Your task to perform on an android device: change the upload size in google photos Image 0: 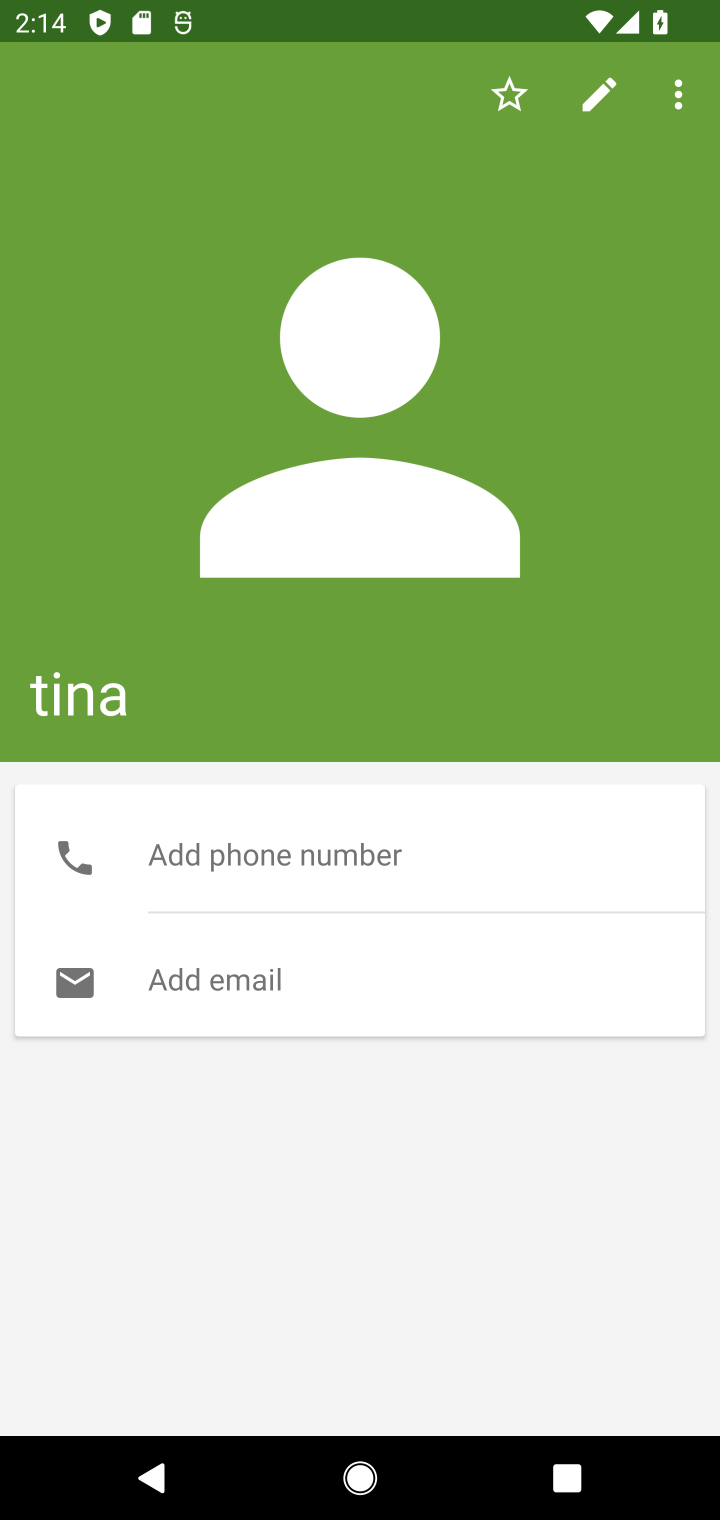
Step 0: press home button
Your task to perform on an android device: change the upload size in google photos Image 1: 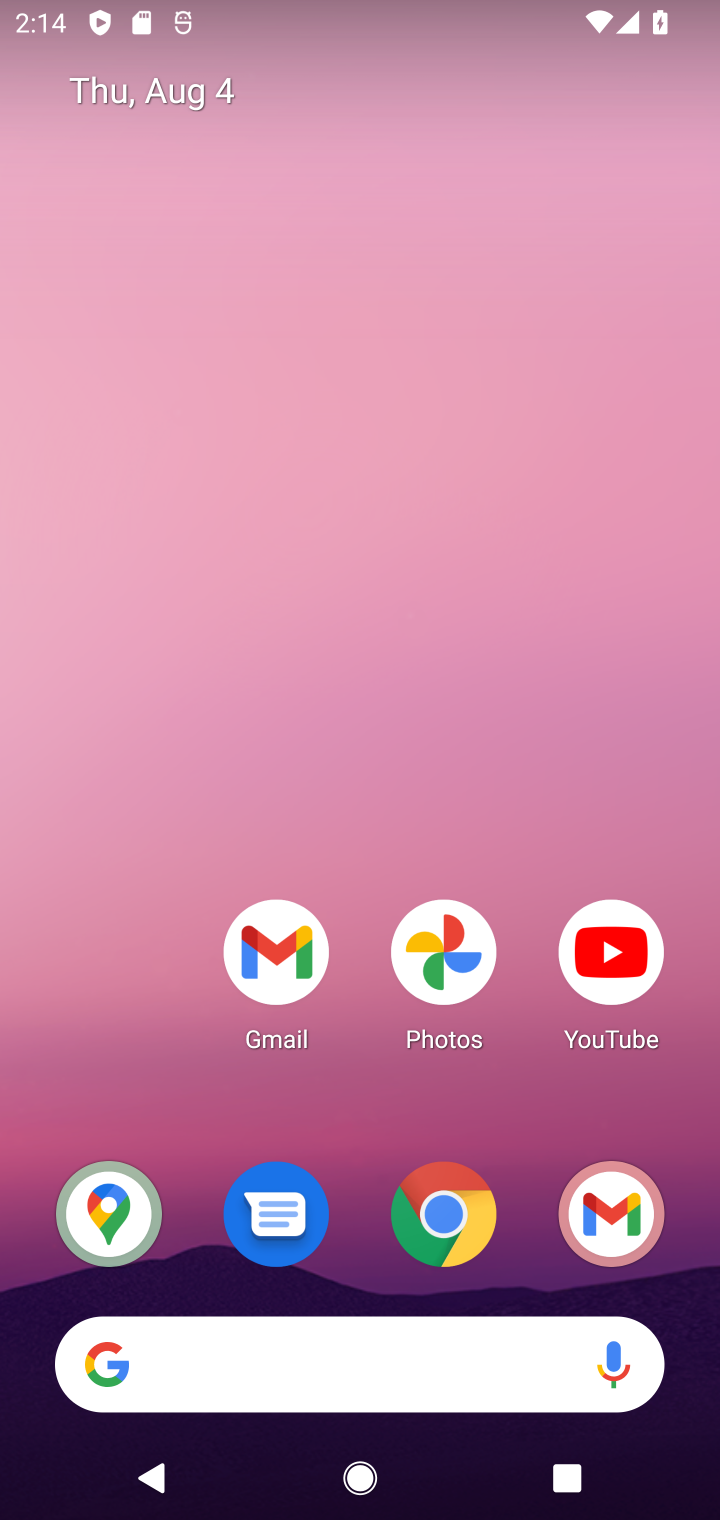
Step 1: drag from (169, 1106) to (85, 2)
Your task to perform on an android device: change the upload size in google photos Image 2: 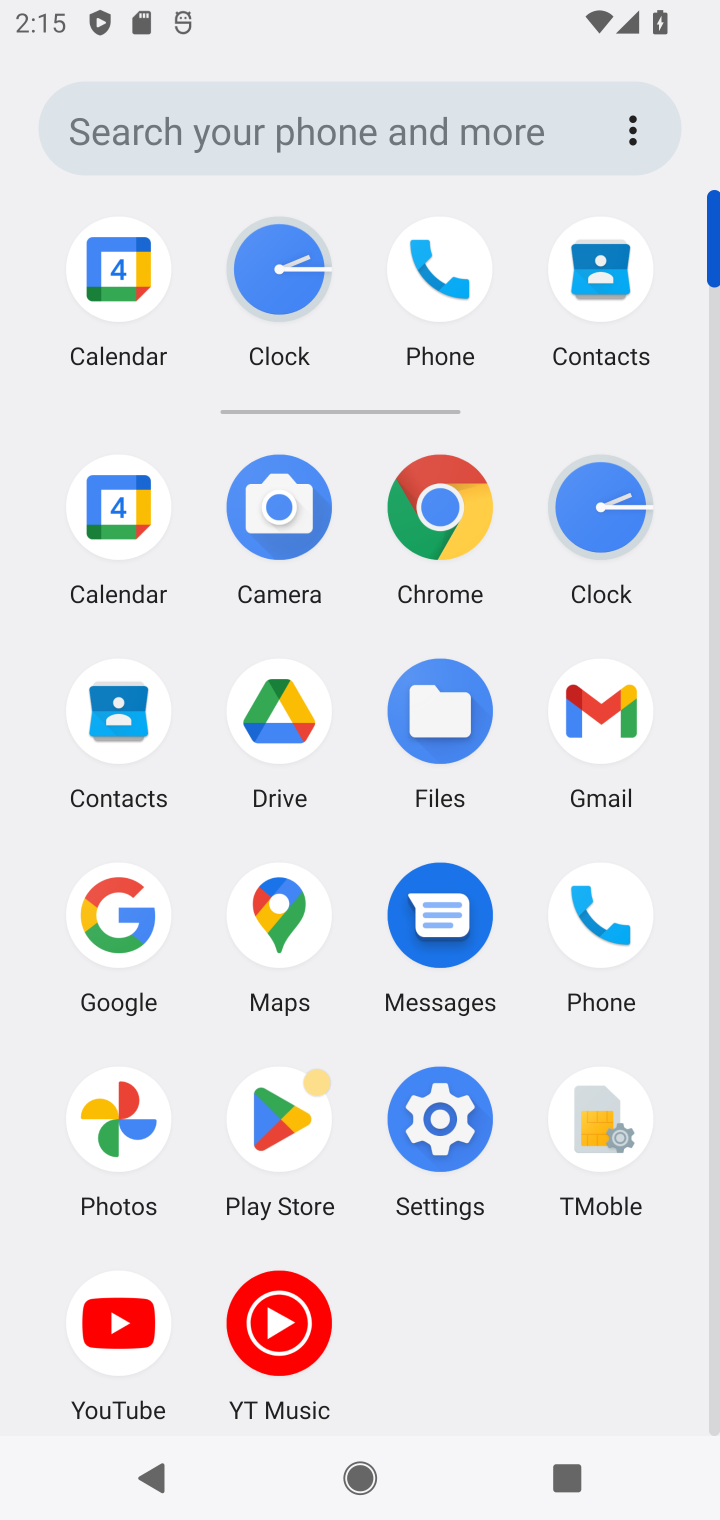
Step 2: click (115, 1122)
Your task to perform on an android device: change the upload size in google photos Image 3: 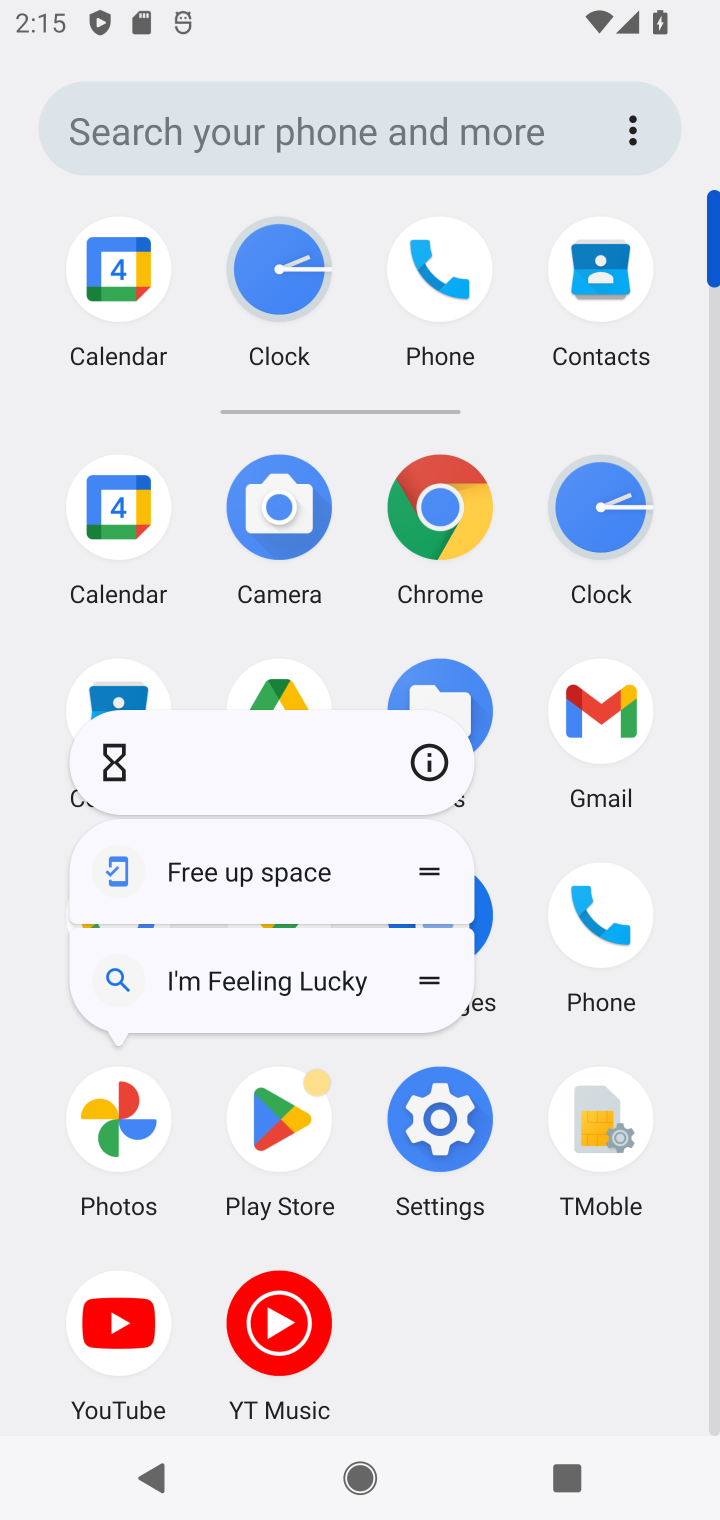
Step 3: click (117, 1097)
Your task to perform on an android device: change the upload size in google photos Image 4: 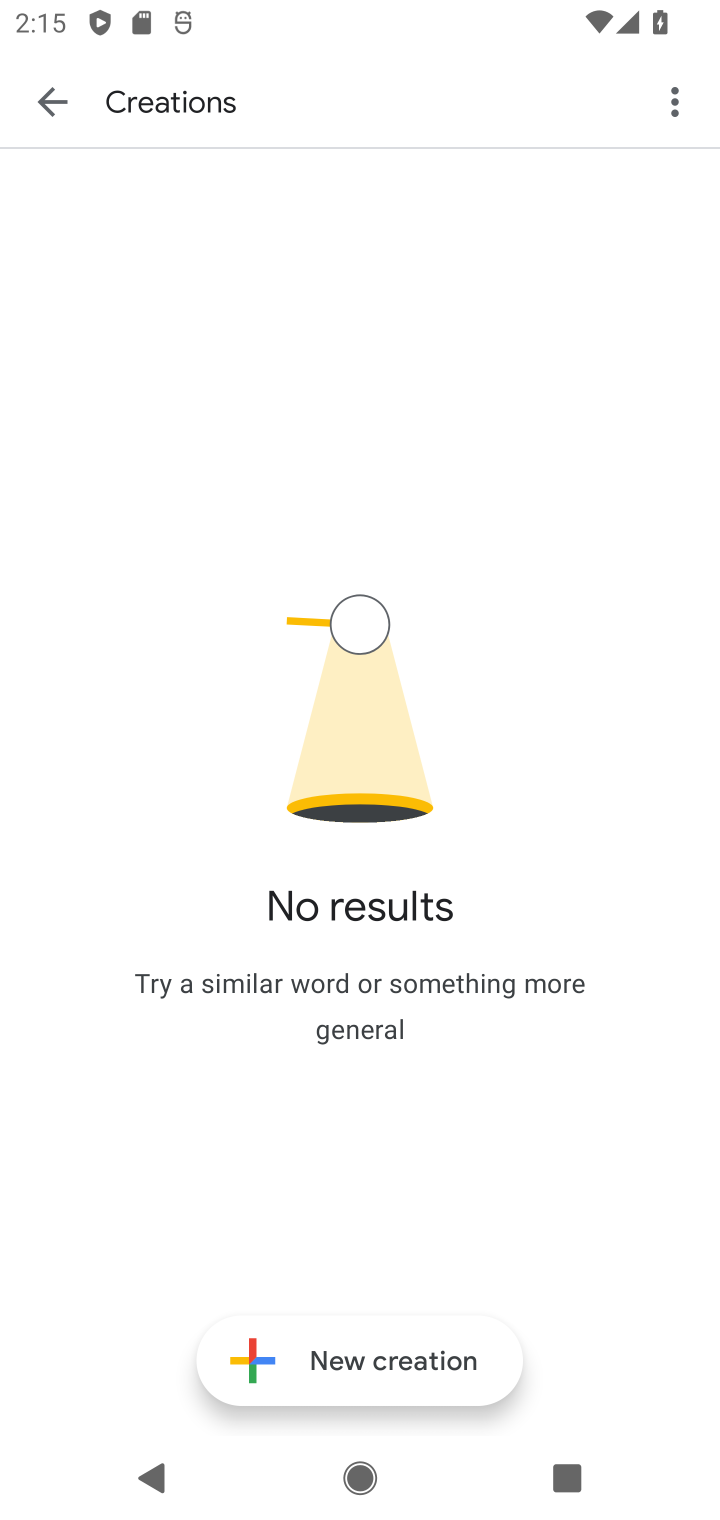
Step 4: press back button
Your task to perform on an android device: change the upload size in google photos Image 5: 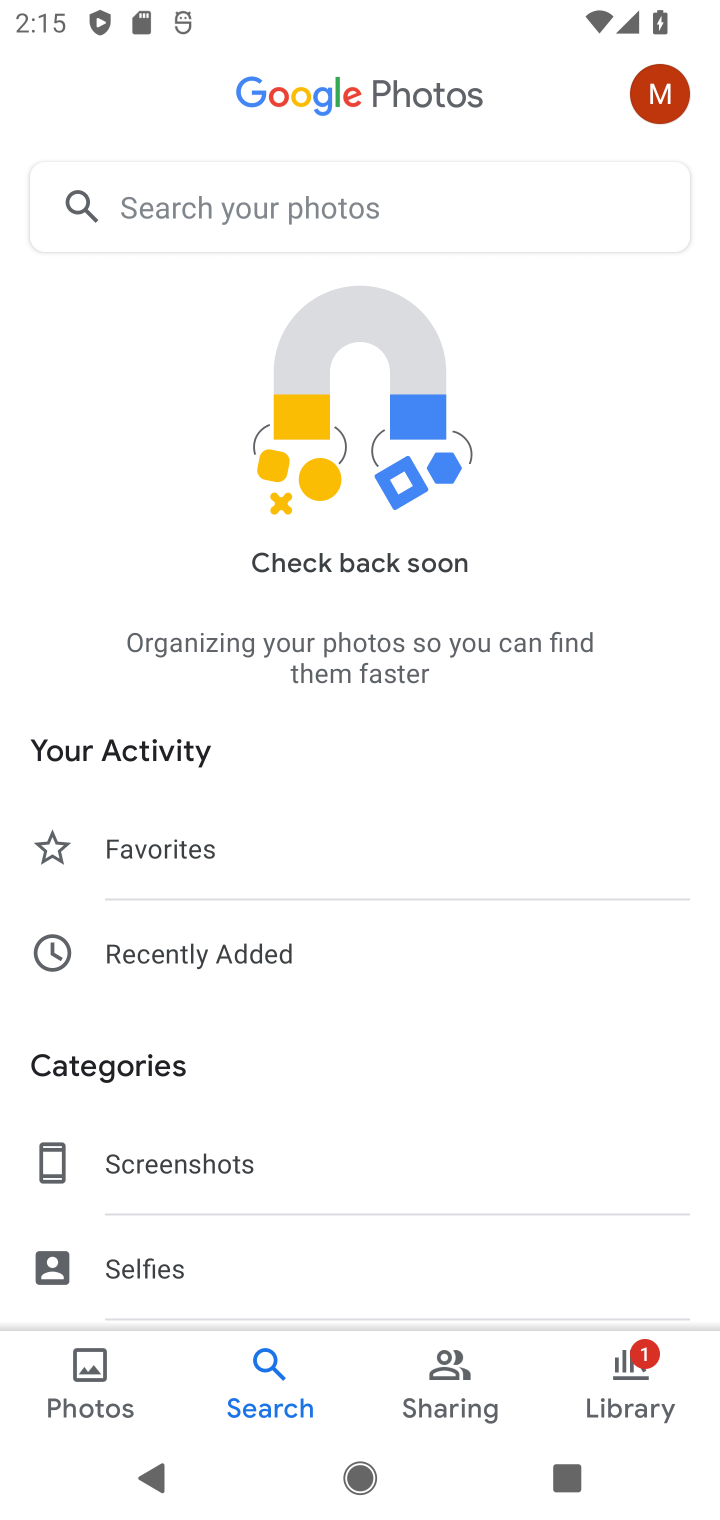
Step 5: press back button
Your task to perform on an android device: change the upload size in google photos Image 6: 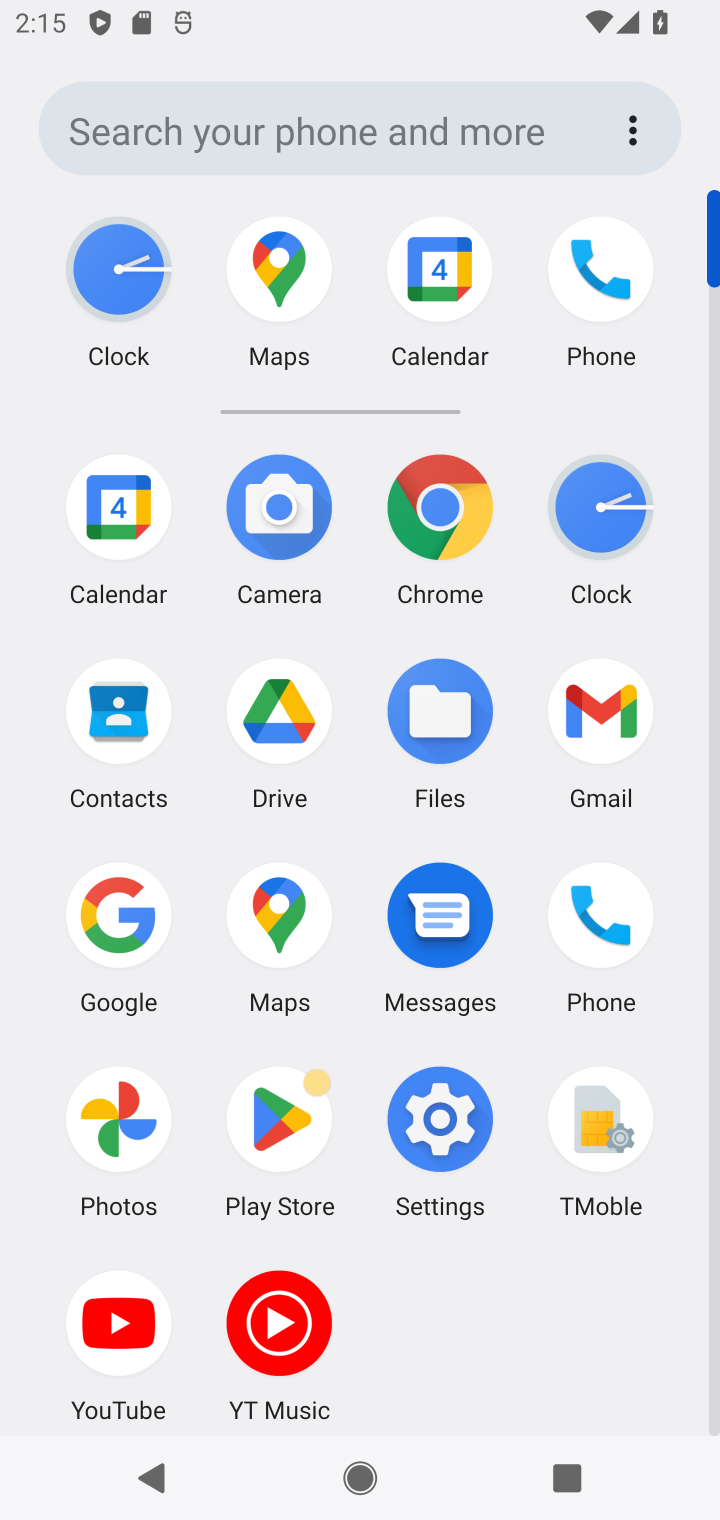
Step 6: click (103, 1138)
Your task to perform on an android device: change the upload size in google photos Image 7: 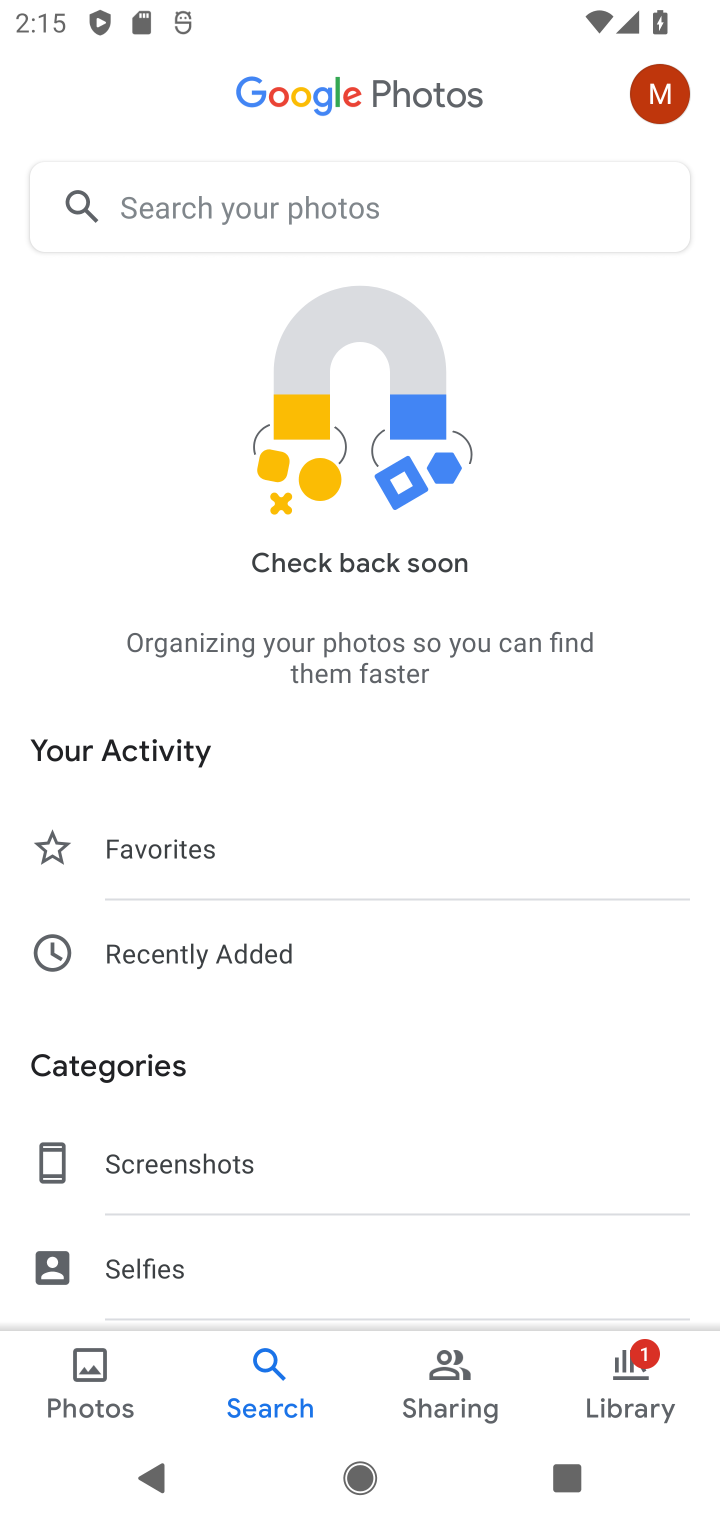
Step 7: press back button
Your task to perform on an android device: change the upload size in google photos Image 8: 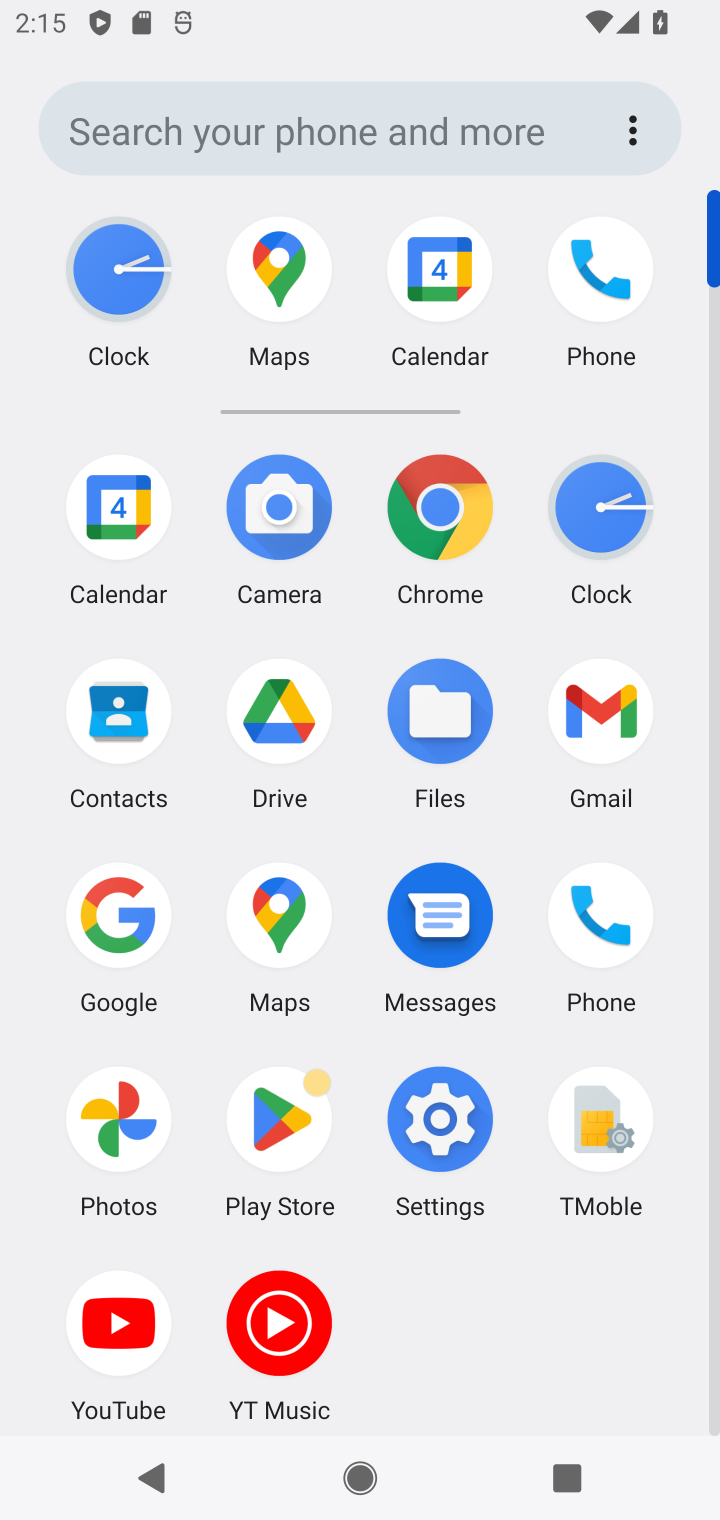
Step 8: click (122, 1134)
Your task to perform on an android device: change the upload size in google photos Image 9: 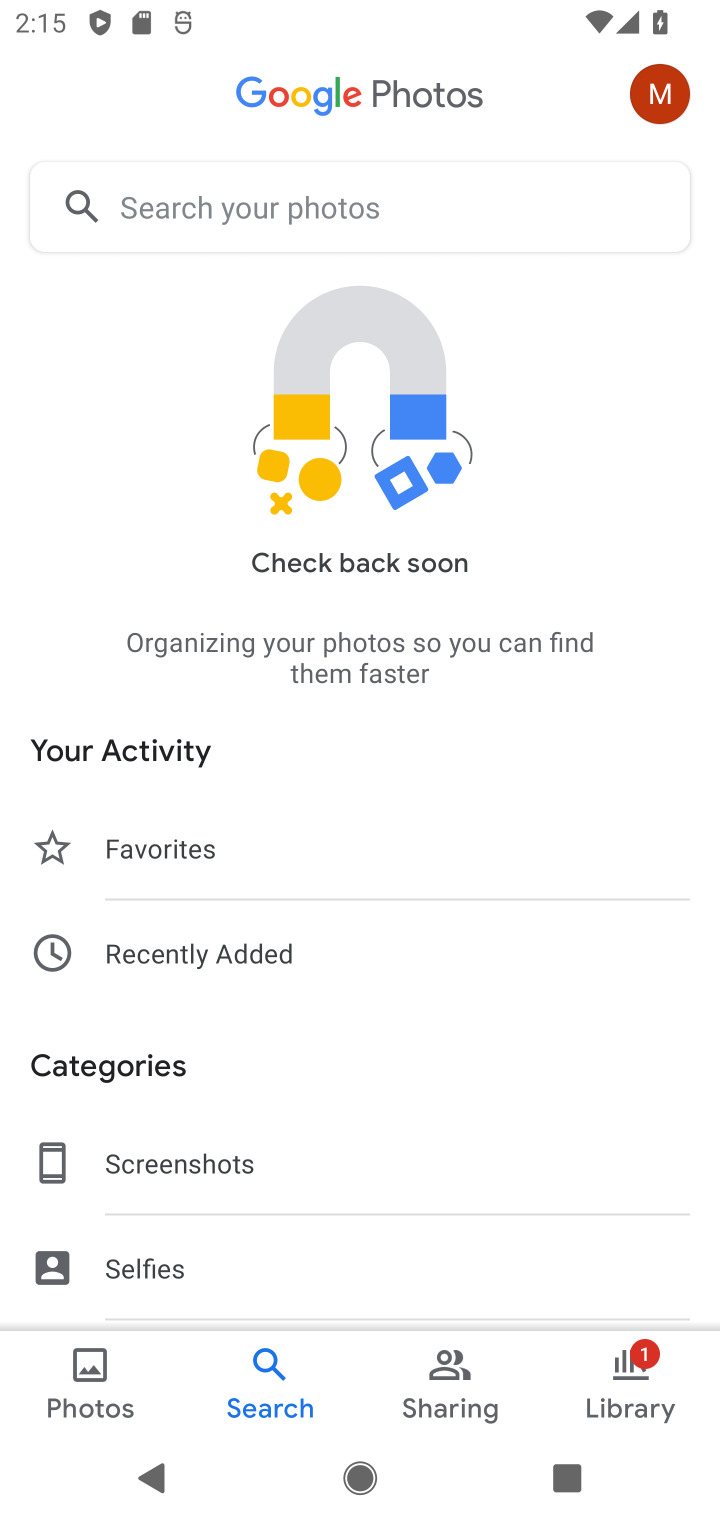
Step 9: task complete